Your task to perform on an android device: Show me productivity apps on the Play Store Image 0: 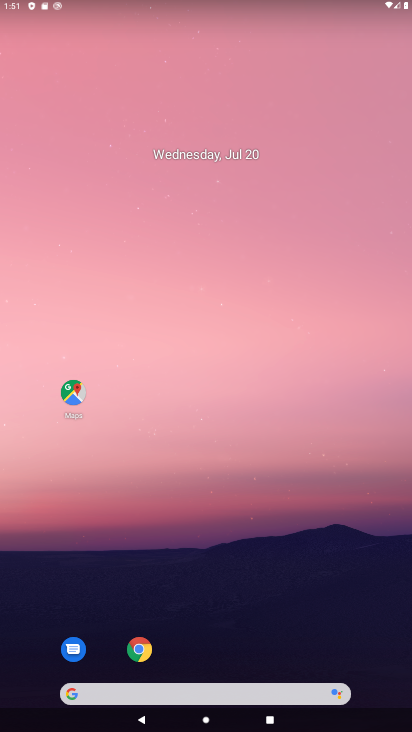
Step 0: drag from (248, 608) to (183, 294)
Your task to perform on an android device: Show me productivity apps on the Play Store Image 1: 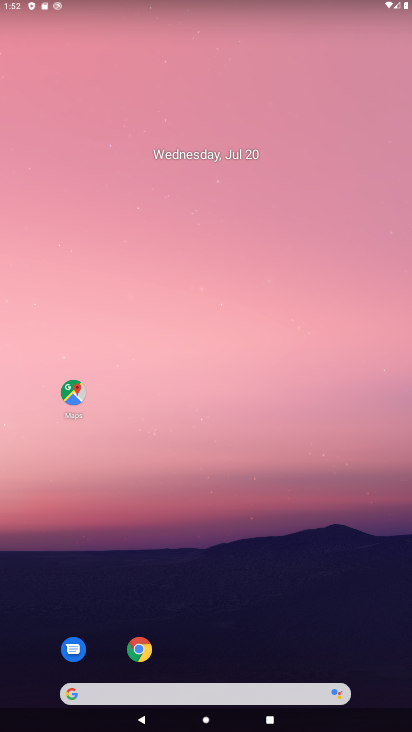
Step 1: drag from (228, 493) to (169, 146)
Your task to perform on an android device: Show me productivity apps on the Play Store Image 2: 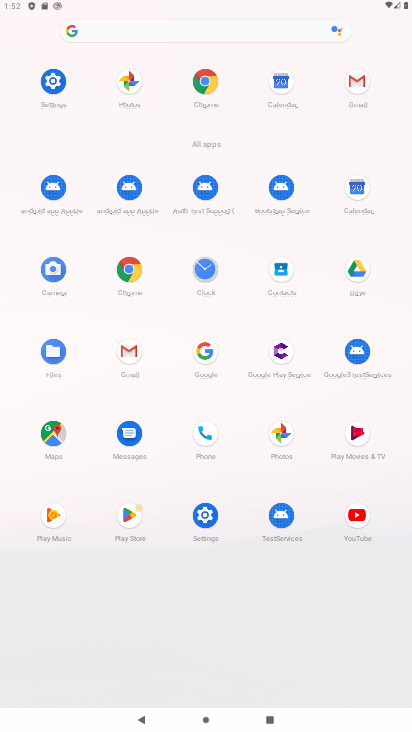
Step 2: click (132, 512)
Your task to perform on an android device: Show me productivity apps on the Play Store Image 3: 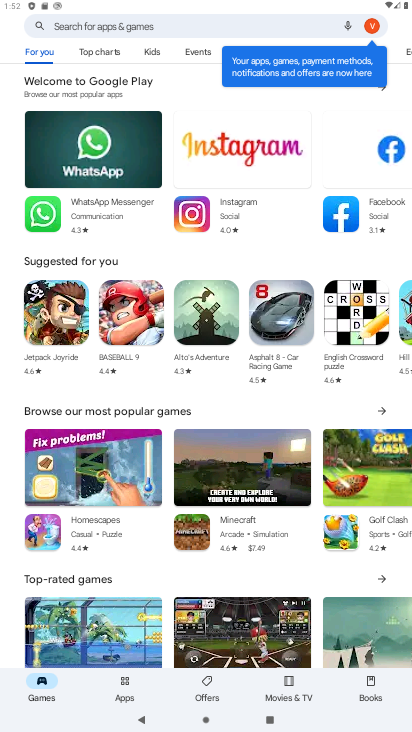
Step 3: click (126, 679)
Your task to perform on an android device: Show me productivity apps on the Play Store Image 4: 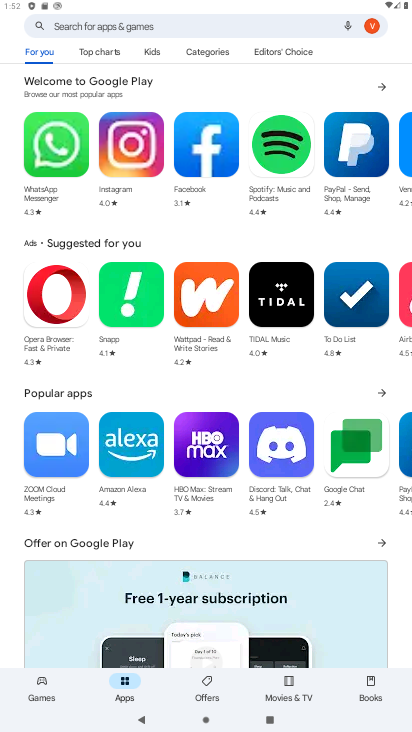
Step 4: task complete